Your task to perform on an android device: Open Google Image 0: 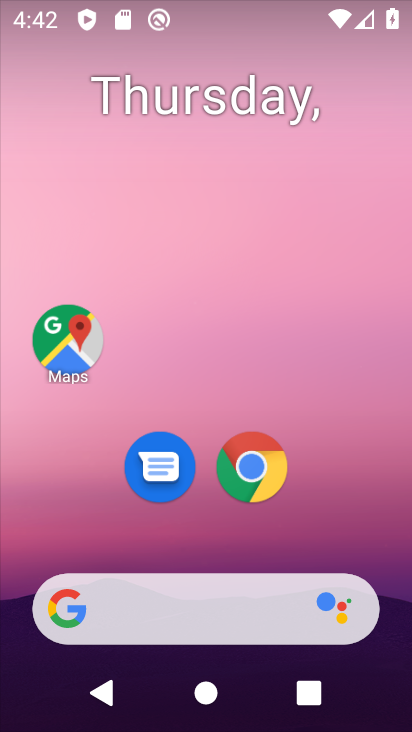
Step 0: drag from (345, 512) to (308, 44)
Your task to perform on an android device: Open Google Image 1: 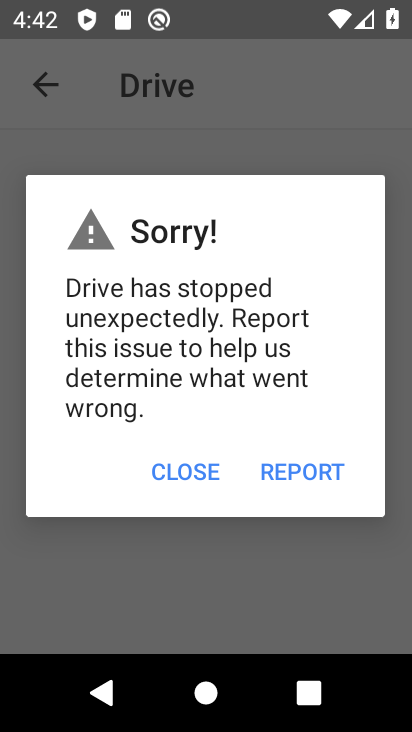
Step 1: press home button
Your task to perform on an android device: Open Google Image 2: 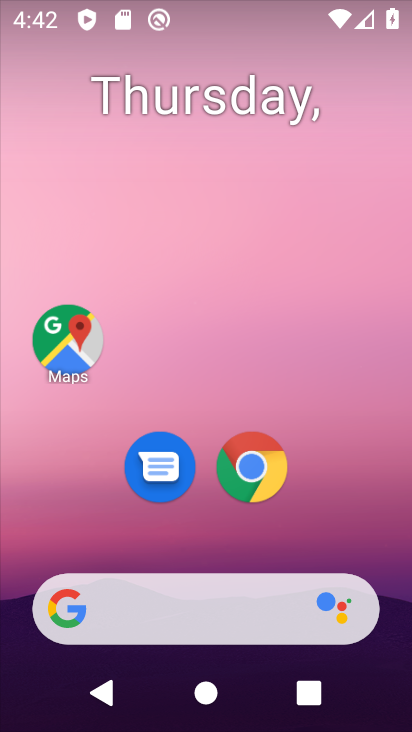
Step 2: drag from (340, 534) to (292, 158)
Your task to perform on an android device: Open Google Image 3: 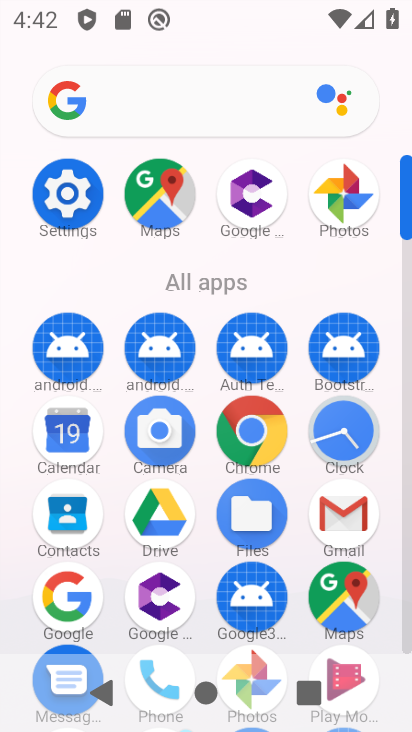
Step 3: click (74, 608)
Your task to perform on an android device: Open Google Image 4: 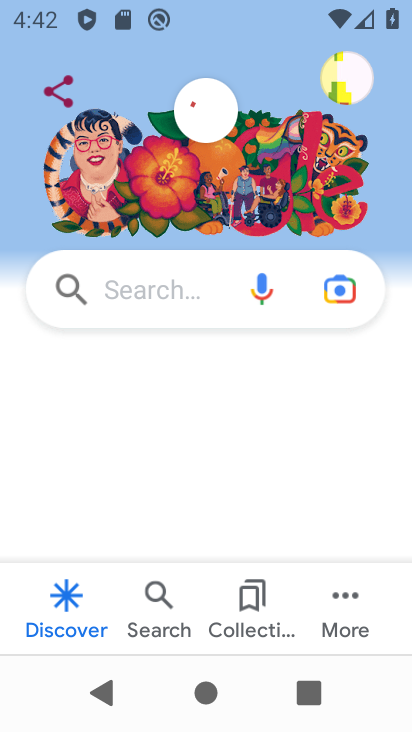
Step 4: task complete